Your task to perform on an android device: Turn off the flashlight Image 0: 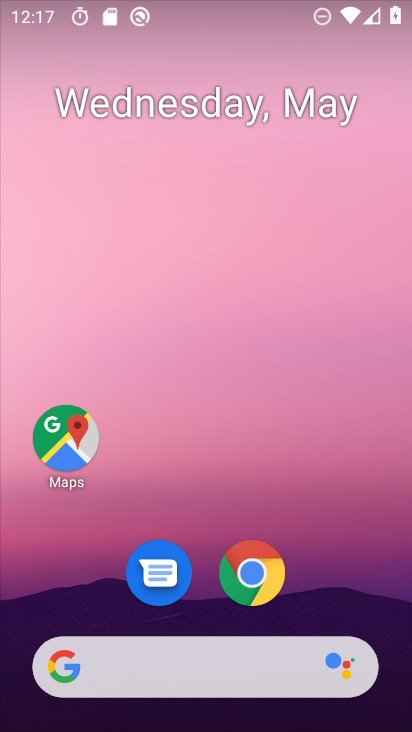
Step 0: drag from (344, 568) to (257, 40)
Your task to perform on an android device: Turn off the flashlight Image 1: 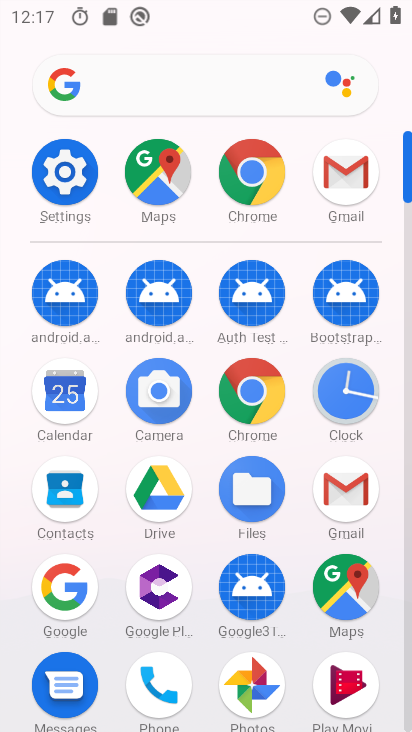
Step 1: drag from (2, 557) to (12, 230)
Your task to perform on an android device: Turn off the flashlight Image 2: 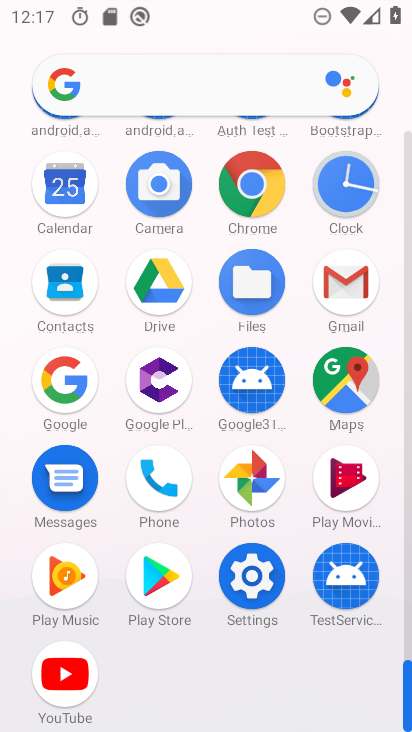
Step 2: click (254, 567)
Your task to perform on an android device: Turn off the flashlight Image 3: 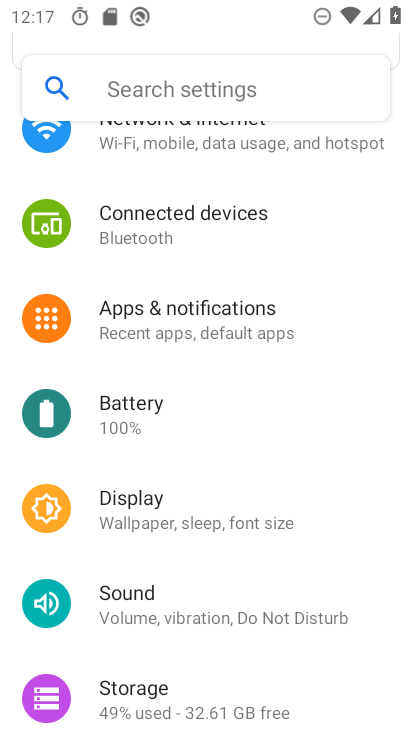
Step 3: drag from (293, 198) to (295, 633)
Your task to perform on an android device: Turn off the flashlight Image 4: 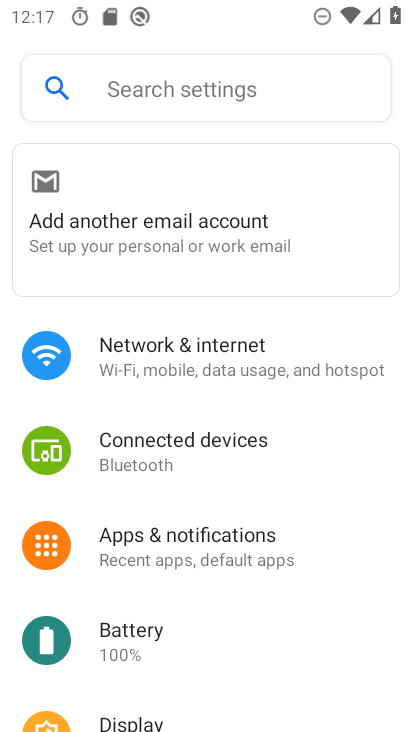
Step 4: click (280, 342)
Your task to perform on an android device: Turn off the flashlight Image 5: 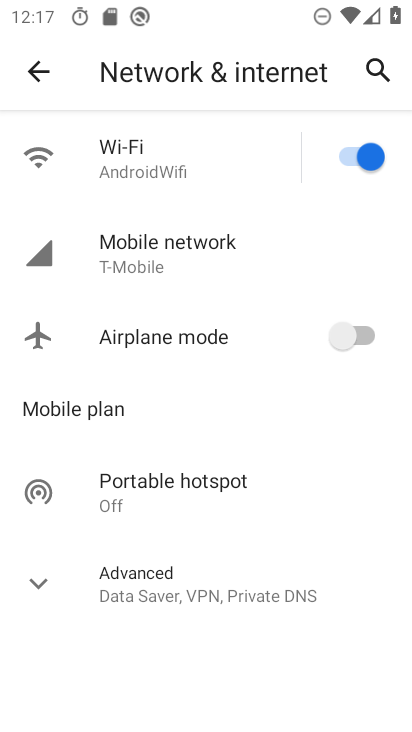
Step 5: click (20, 580)
Your task to perform on an android device: Turn off the flashlight Image 6: 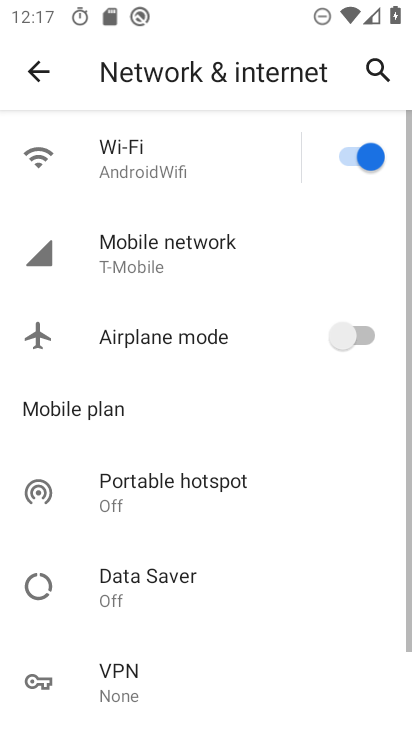
Step 6: task complete